Your task to perform on an android device: turn notification dots off Image 0: 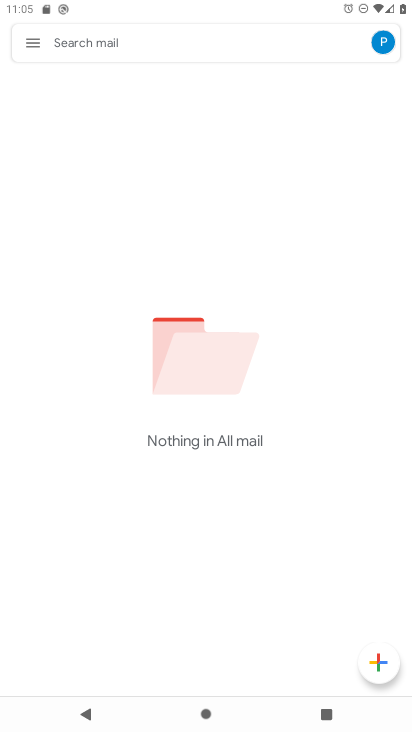
Step 0: press home button
Your task to perform on an android device: turn notification dots off Image 1: 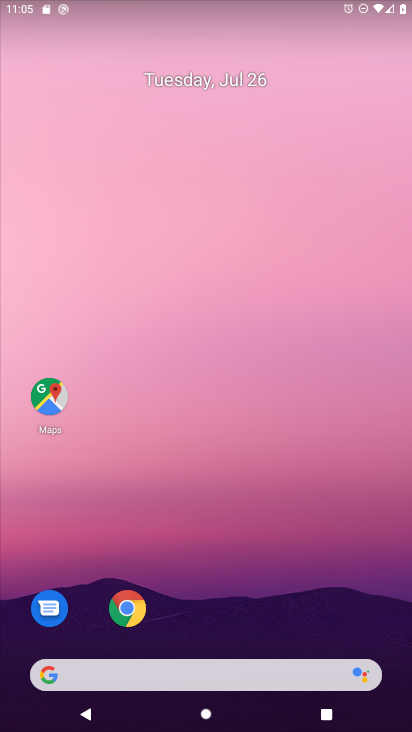
Step 1: drag from (230, 597) to (246, 154)
Your task to perform on an android device: turn notification dots off Image 2: 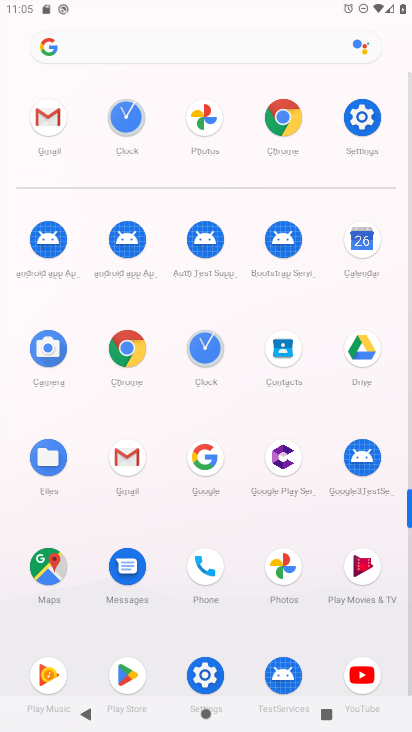
Step 2: click (375, 106)
Your task to perform on an android device: turn notification dots off Image 3: 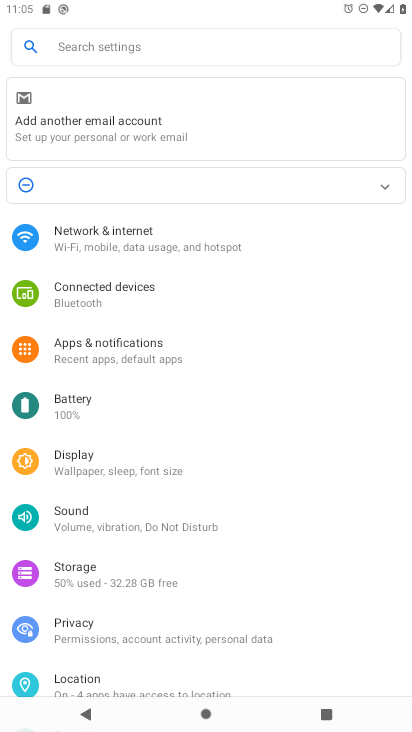
Step 3: click (81, 349)
Your task to perform on an android device: turn notification dots off Image 4: 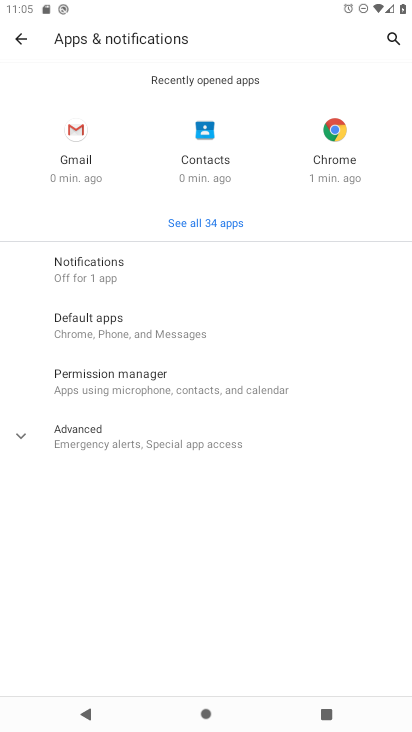
Step 4: click (111, 270)
Your task to perform on an android device: turn notification dots off Image 5: 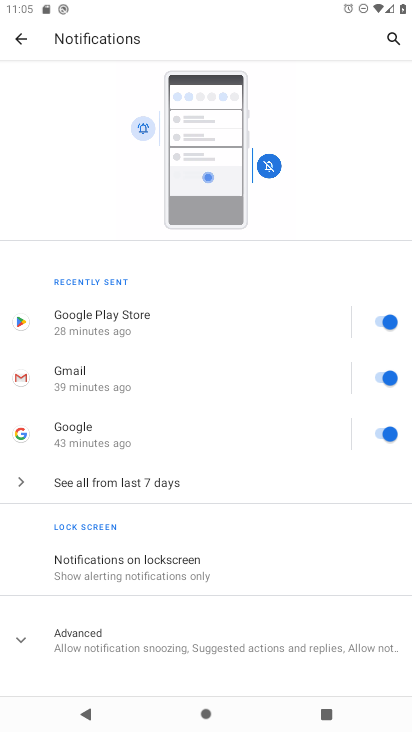
Step 5: drag from (202, 616) to (217, 256)
Your task to perform on an android device: turn notification dots off Image 6: 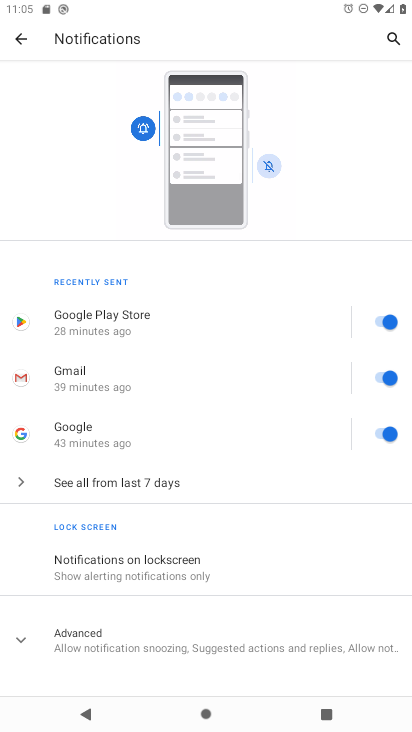
Step 6: click (122, 639)
Your task to perform on an android device: turn notification dots off Image 7: 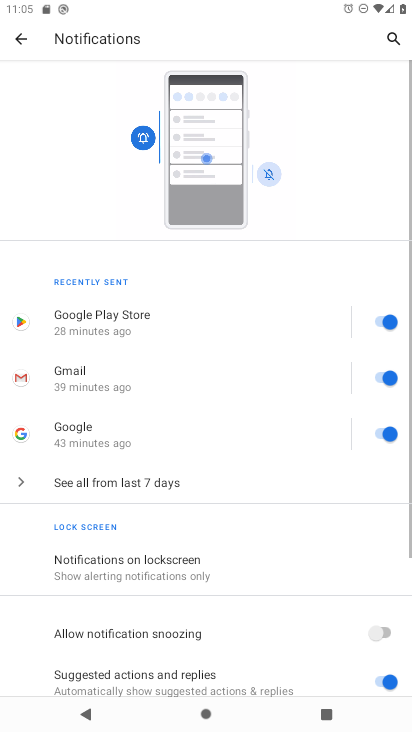
Step 7: drag from (277, 625) to (277, 255)
Your task to perform on an android device: turn notification dots off Image 8: 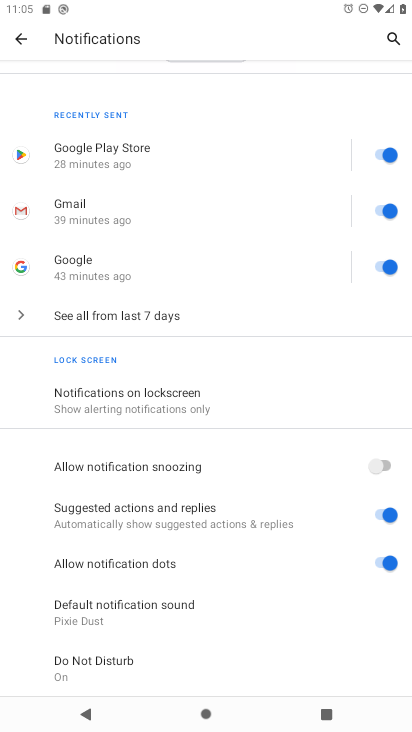
Step 8: click (386, 561)
Your task to perform on an android device: turn notification dots off Image 9: 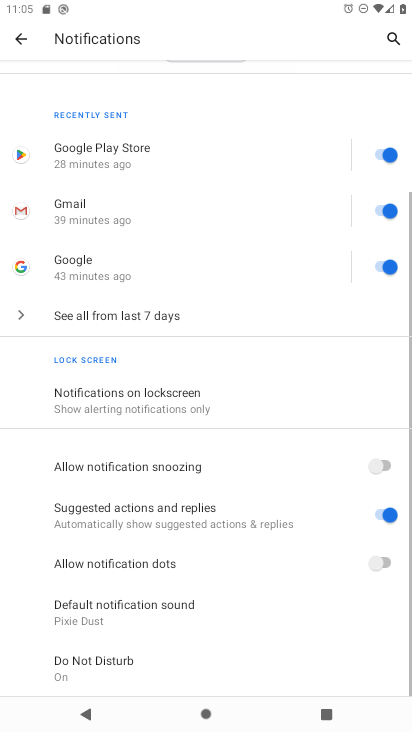
Step 9: task complete